Your task to perform on an android device: Open Yahoo.com Image 0: 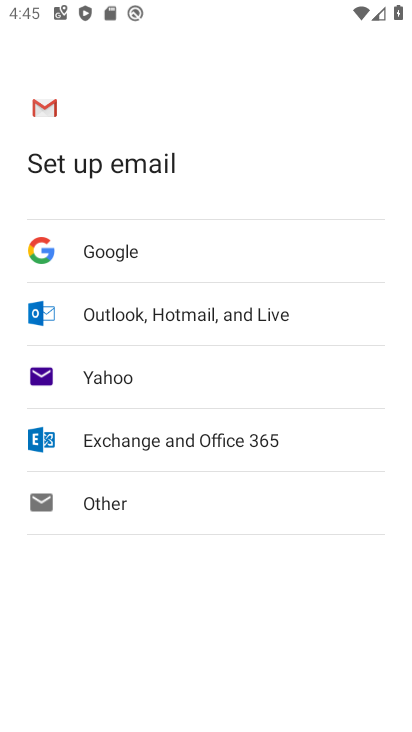
Step 0: press home button
Your task to perform on an android device: Open Yahoo.com Image 1: 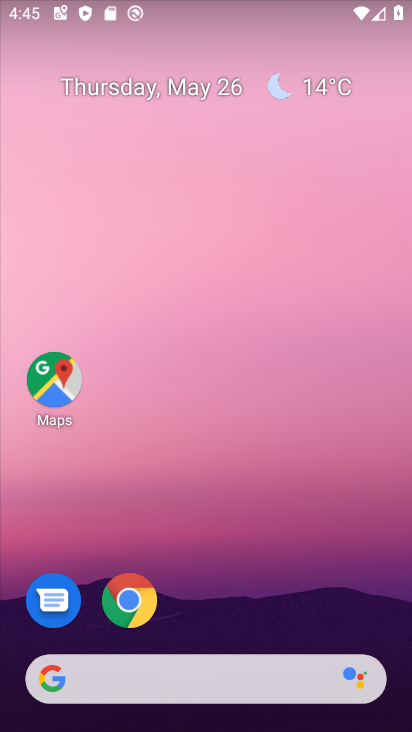
Step 1: click (131, 599)
Your task to perform on an android device: Open Yahoo.com Image 2: 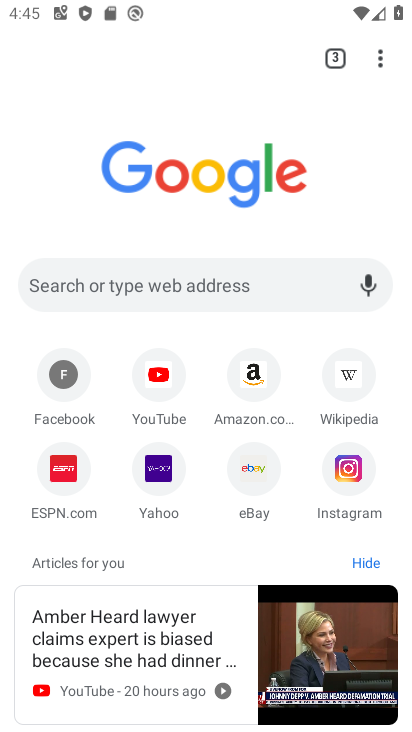
Step 2: click (159, 483)
Your task to perform on an android device: Open Yahoo.com Image 3: 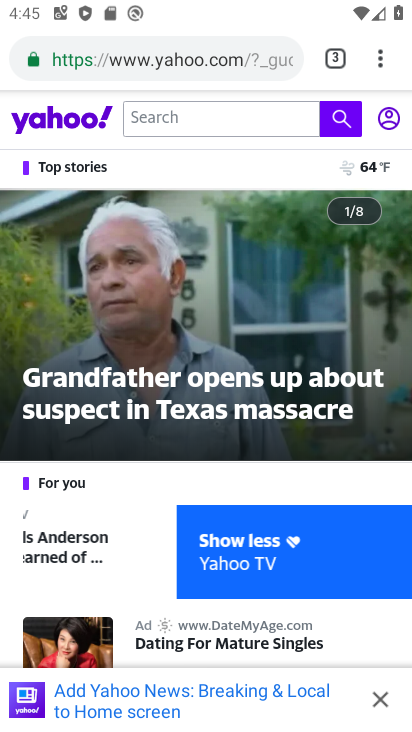
Step 3: task complete